Your task to perform on an android device: Go to eBay Image 0: 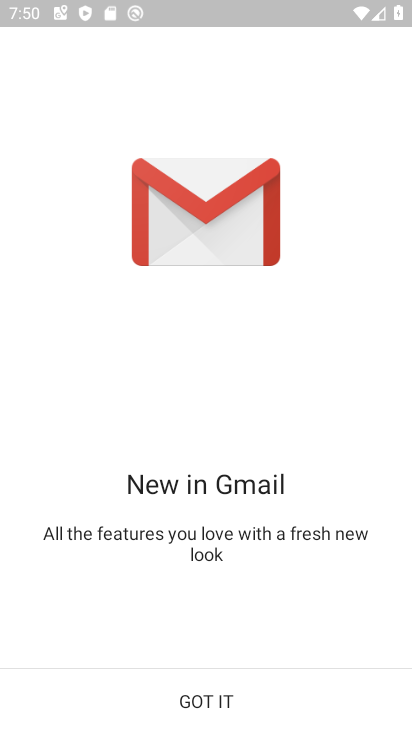
Step 0: click (194, 695)
Your task to perform on an android device: Go to eBay Image 1: 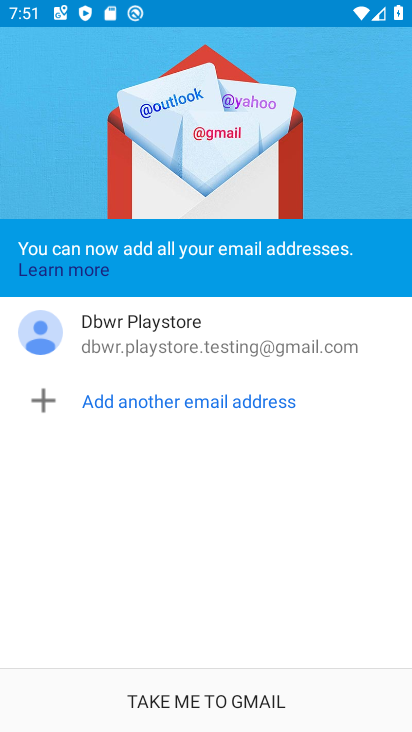
Step 1: click (166, 702)
Your task to perform on an android device: Go to eBay Image 2: 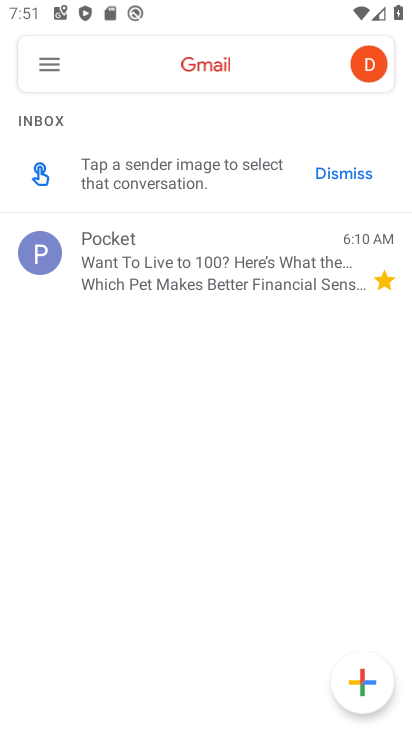
Step 2: press home button
Your task to perform on an android device: Go to eBay Image 3: 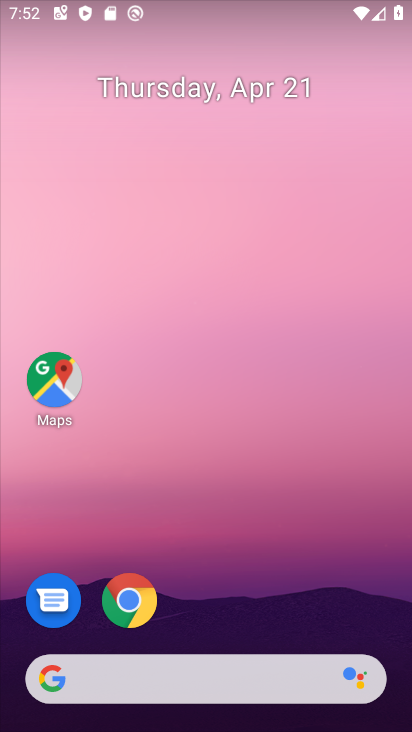
Step 3: click (125, 602)
Your task to perform on an android device: Go to eBay Image 4: 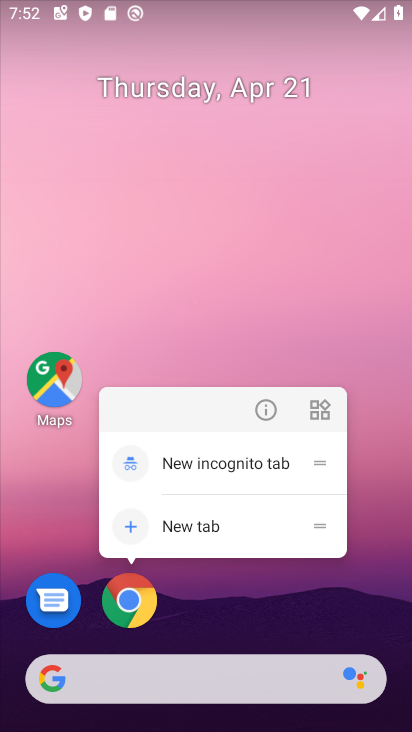
Step 4: click (261, 407)
Your task to perform on an android device: Go to eBay Image 5: 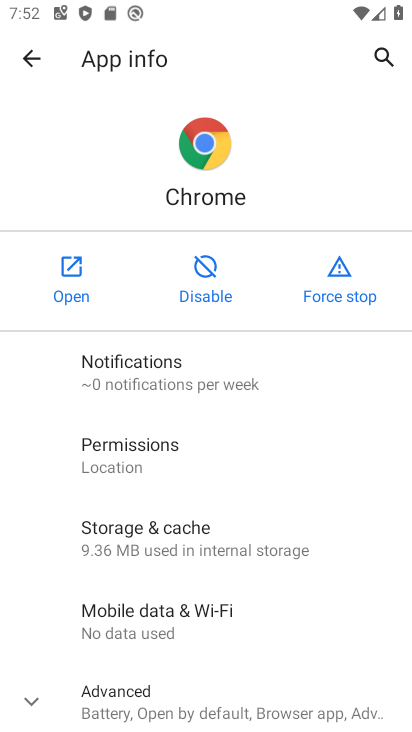
Step 5: click (70, 273)
Your task to perform on an android device: Go to eBay Image 6: 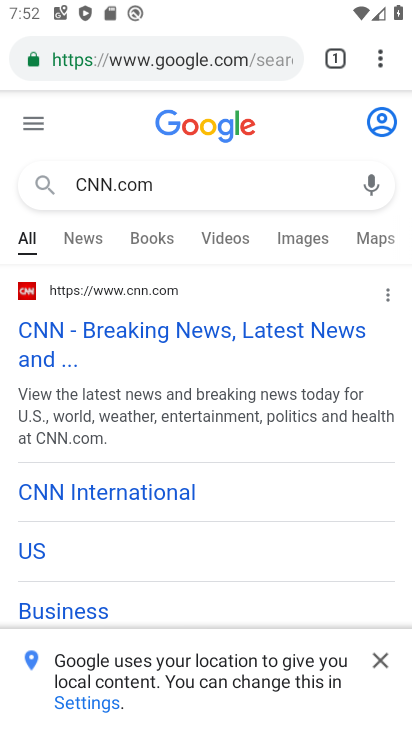
Step 6: click (330, 61)
Your task to perform on an android device: Go to eBay Image 7: 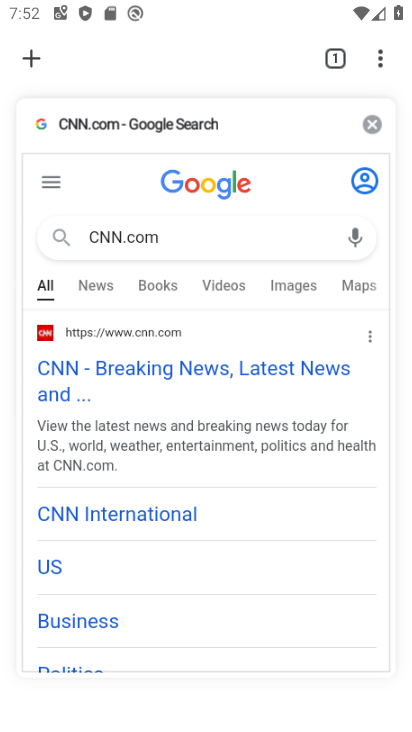
Step 7: click (370, 125)
Your task to perform on an android device: Go to eBay Image 8: 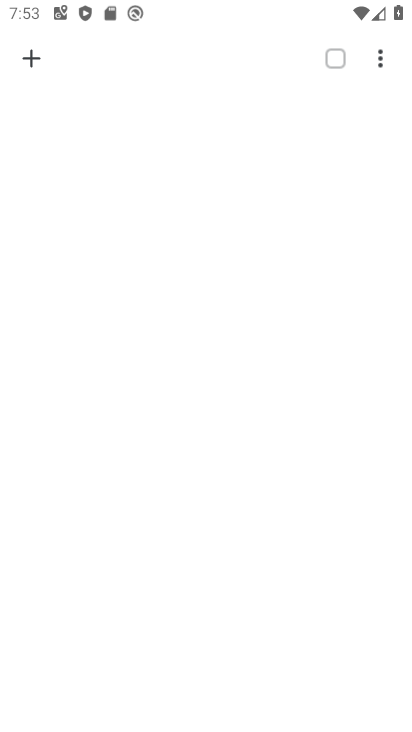
Step 8: click (28, 50)
Your task to perform on an android device: Go to eBay Image 9: 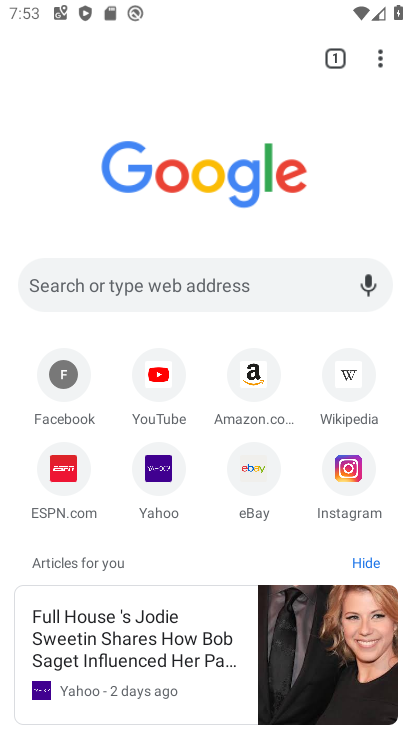
Step 9: click (246, 474)
Your task to perform on an android device: Go to eBay Image 10: 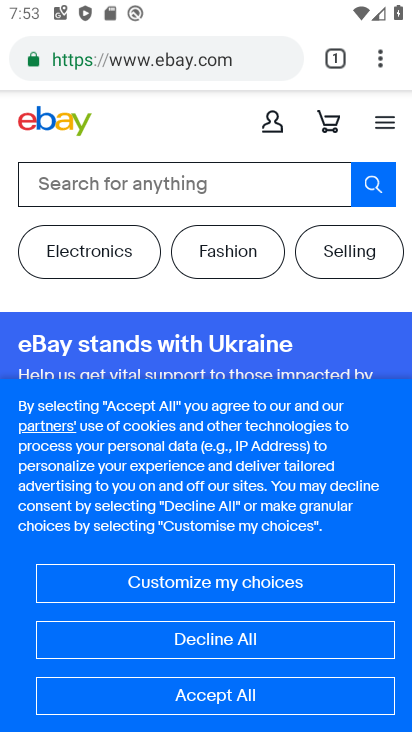
Step 10: task complete